Your task to perform on an android device: Open the calendar app, open the side menu, and click the "Day" option Image 0: 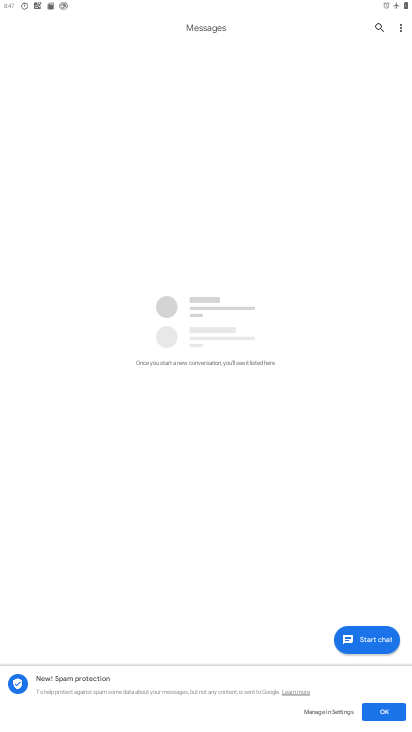
Step 0: press home button
Your task to perform on an android device: Open the calendar app, open the side menu, and click the "Day" option Image 1: 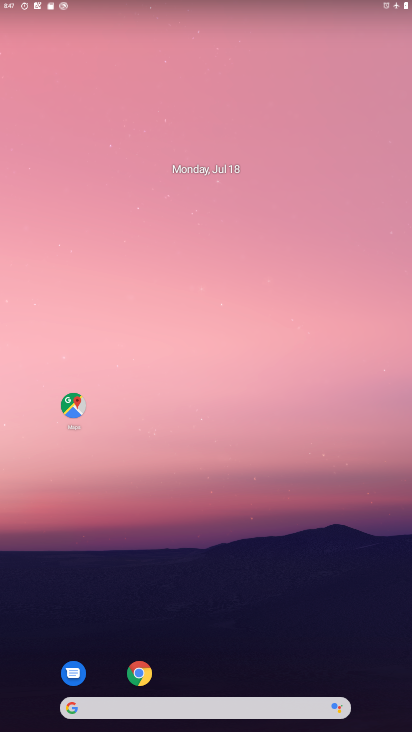
Step 1: drag from (207, 546) to (224, 31)
Your task to perform on an android device: Open the calendar app, open the side menu, and click the "Day" option Image 2: 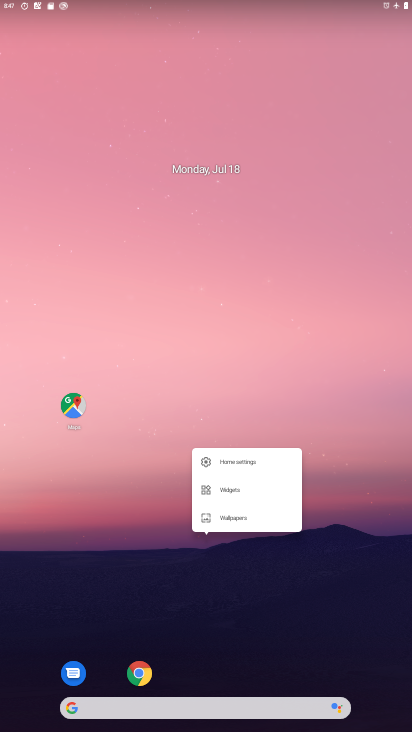
Step 2: click (201, 611)
Your task to perform on an android device: Open the calendar app, open the side menu, and click the "Day" option Image 3: 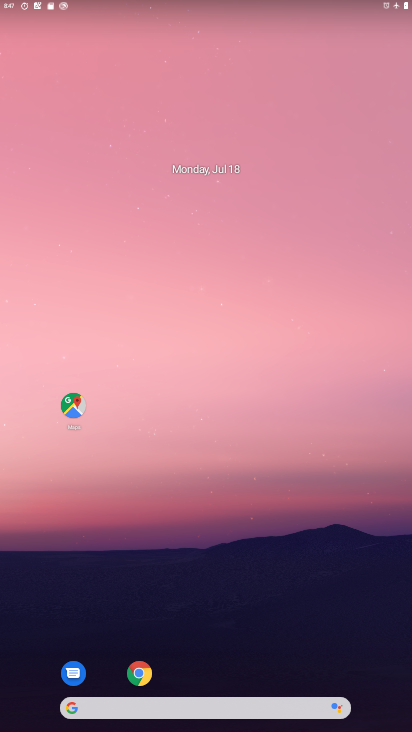
Step 3: drag from (201, 580) to (210, 116)
Your task to perform on an android device: Open the calendar app, open the side menu, and click the "Day" option Image 4: 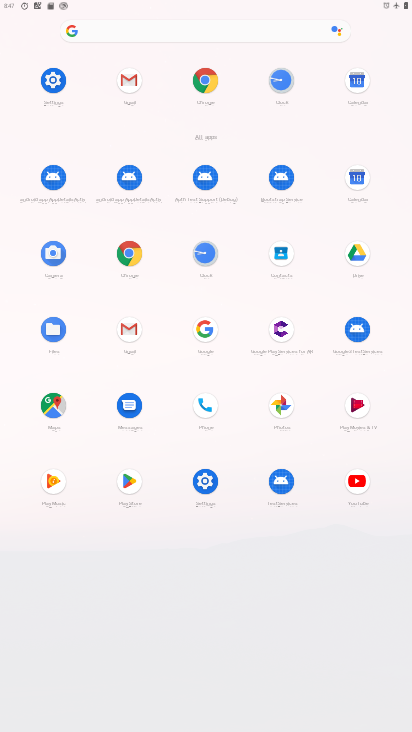
Step 4: click (353, 183)
Your task to perform on an android device: Open the calendar app, open the side menu, and click the "Day" option Image 5: 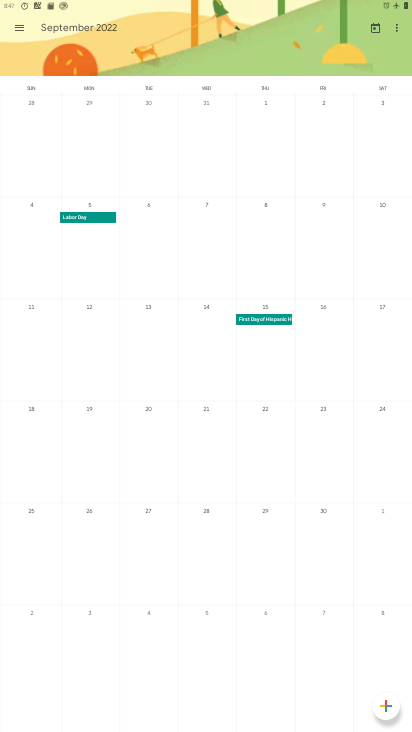
Step 5: click (25, 25)
Your task to perform on an android device: Open the calendar app, open the side menu, and click the "Day" option Image 6: 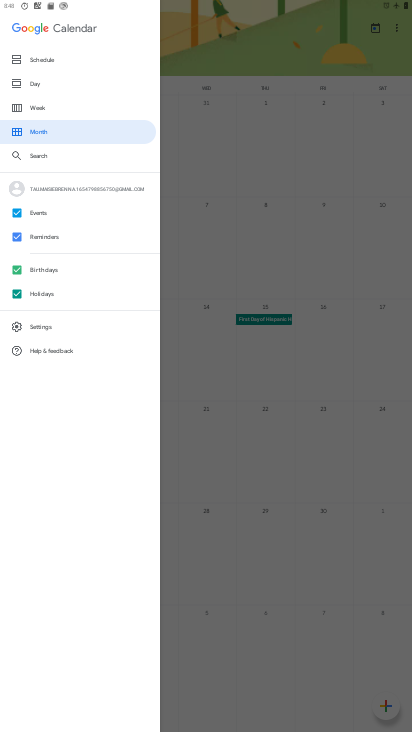
Step 6: click (33, 85)
Your task to perform on an android device: Open the calendar app, open the side menu, and click the "Day" option Image 7: 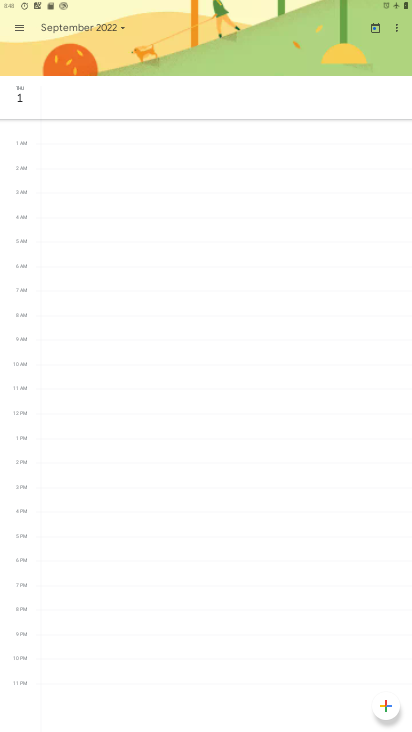
Step 7: task complete